Your task to perform on an android device: Go to settings Image 0: 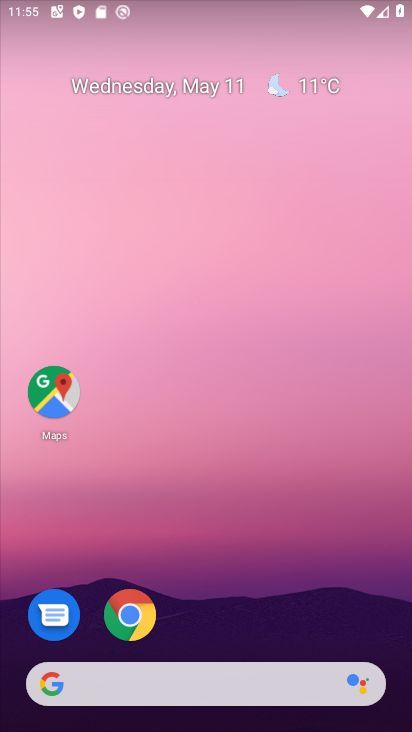
Step 0: drag from (295, 574) to (313, 223)
Your task to perform on an android device: Go to settings Image 1: 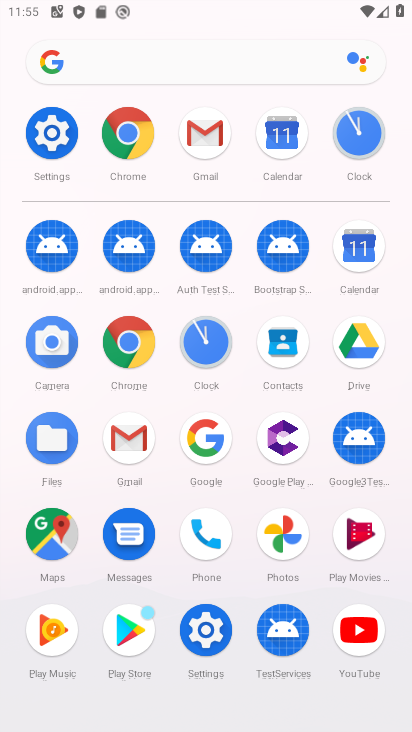
Step 1: click (49, 131)
Your task to perform on an android device: Go to settings Image 2: 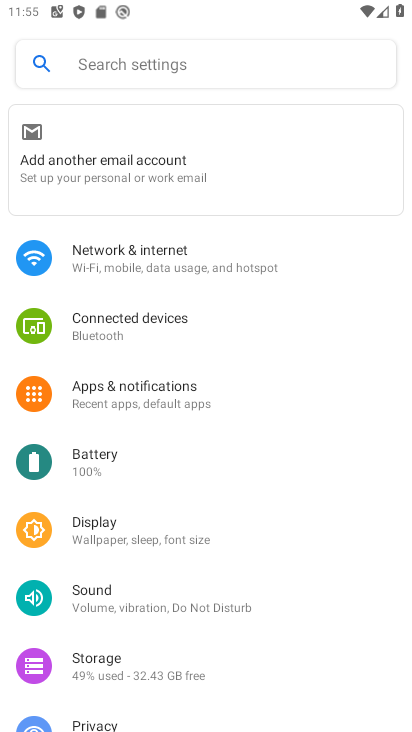
Step 2: task complete